Your task to perform on an android device: create a new album in the google photos Image 0: 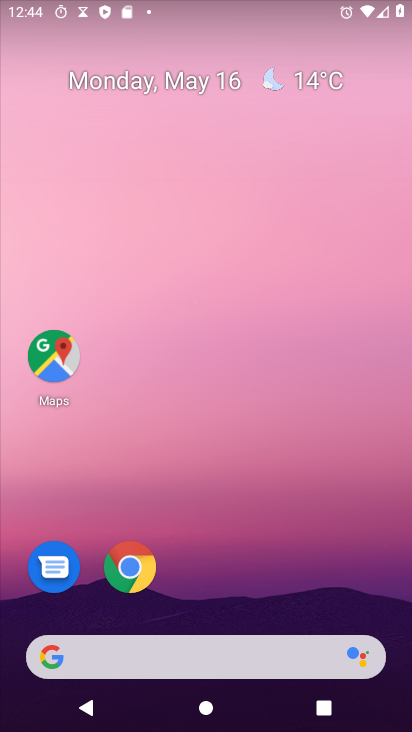
Step 0: drag from (273, 613) to (306, 27)
Your task to perform on an android device: create a new album in the google photos Image 1: 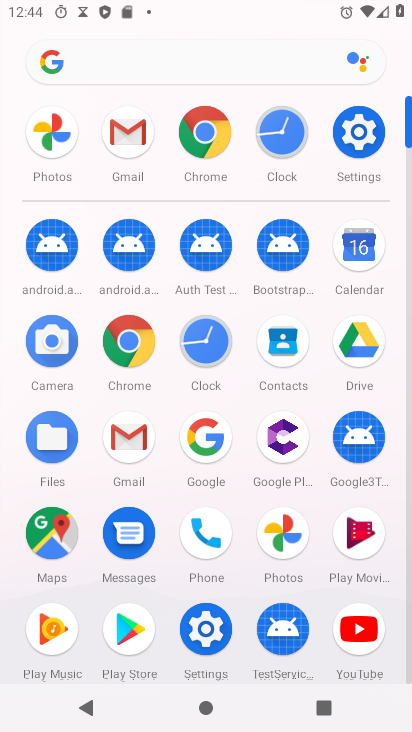
Step 1: click (272, 541)
Your task to perform on an android device: create a new album in the google photos Image 2: 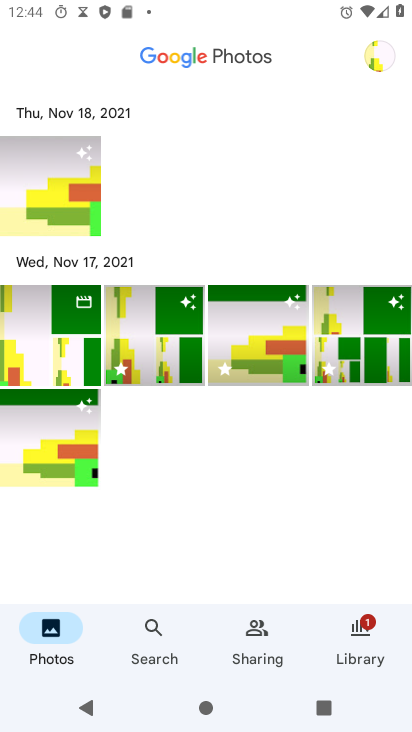
Step 2: click (355, 615)
Your task to perform on an android device: create a new album in the google photos Image 3: 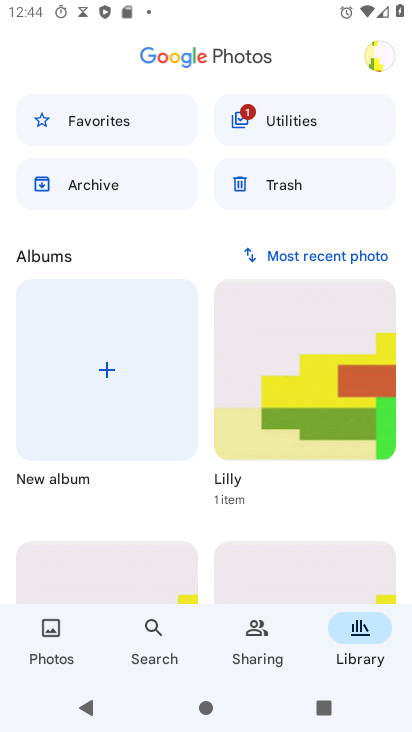
Step 3: click (96, 366)
Your task to perform on an android device: create a new album in the google photos Image 4: 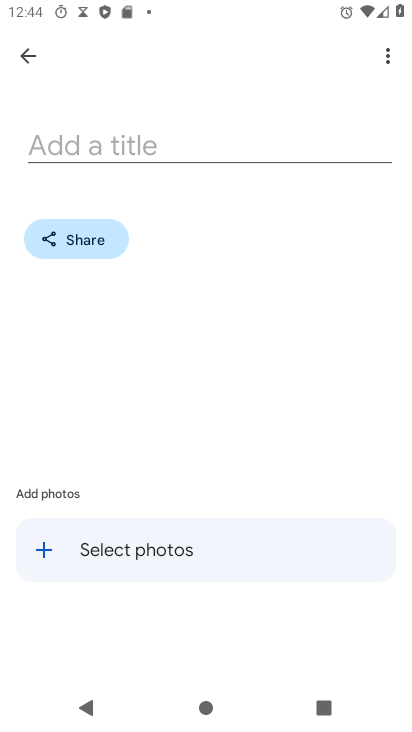
Step 4: click (188, 144)
Your task to perform on an android device: create a new album in the google photos Image 5: 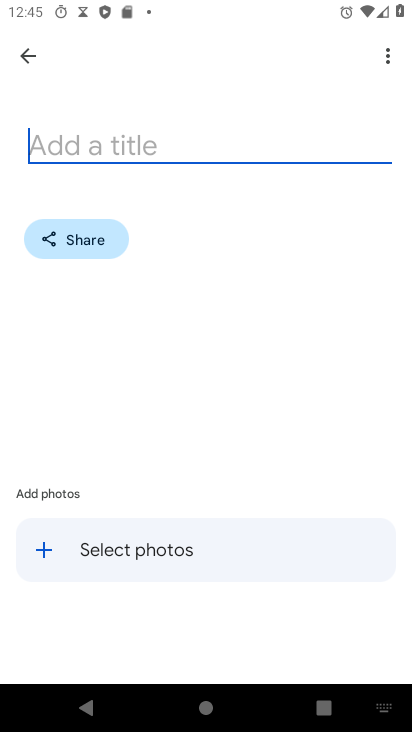
Step 5: type "asfdyftft"
Your task to perform on an android device: create a new album in the google photos Image 6: 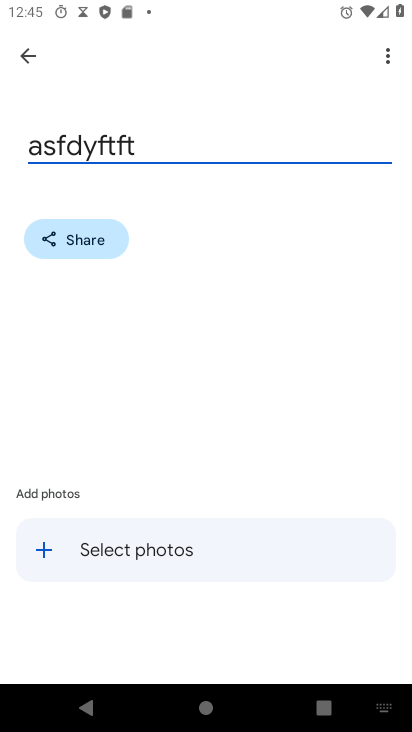
Step 6: click (87, 555)
Your task to perform on an android device: create a new album in the google photos Image 7: 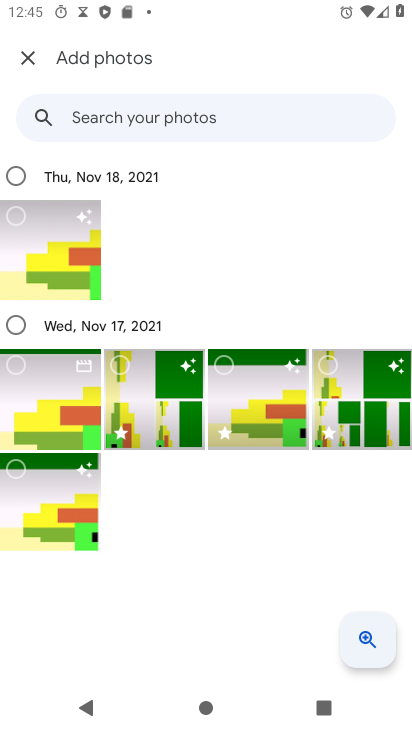
Step 7: click (42, 416)
Your task to perform on an android device: create a new album in the google photos Image 8: 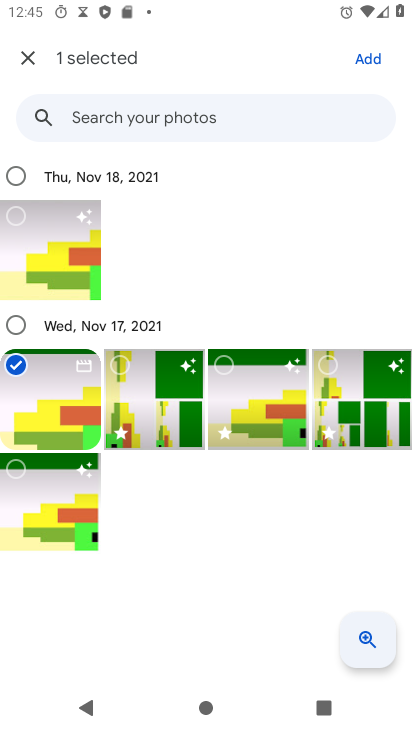
Step 8: click (172, 415)
Your task to perform on an android device: create a new album in the google photos Image 9: 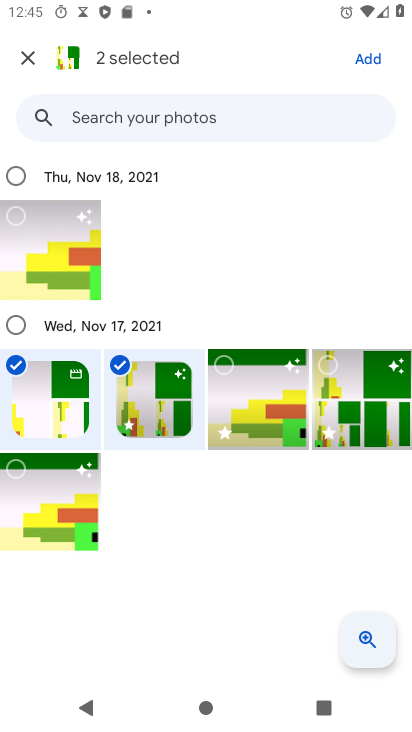
Step 9: click (367, 55)
Your task to perform on an android device: create a new album in the google photos Image 10: 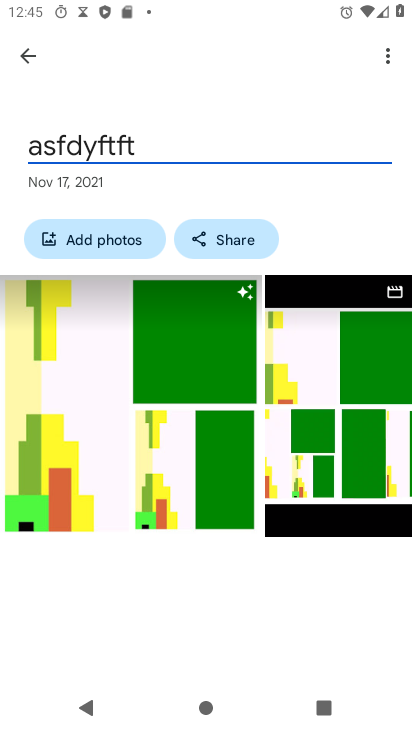
Step 10: task complete